Your task to perform on an android device: Open my contact list Image 0: 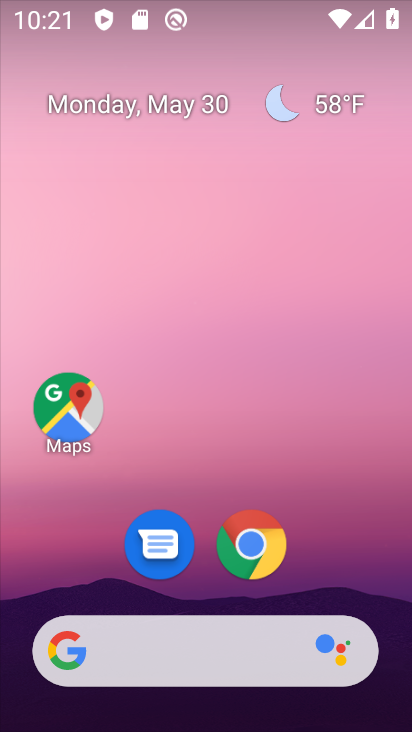
Step 0: drag from (345, 575) to (345, 4)
Your task to perform on an android device: Open my contact list Image 1: 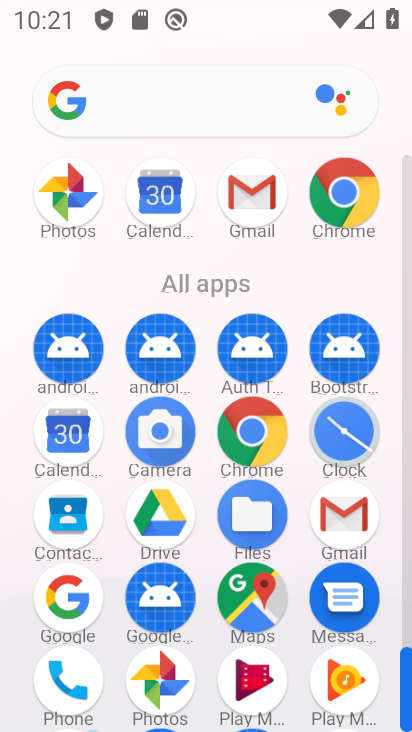
Step 1: click (407, 709)
Your task to perform on an android device: Open my contact list Image 2: 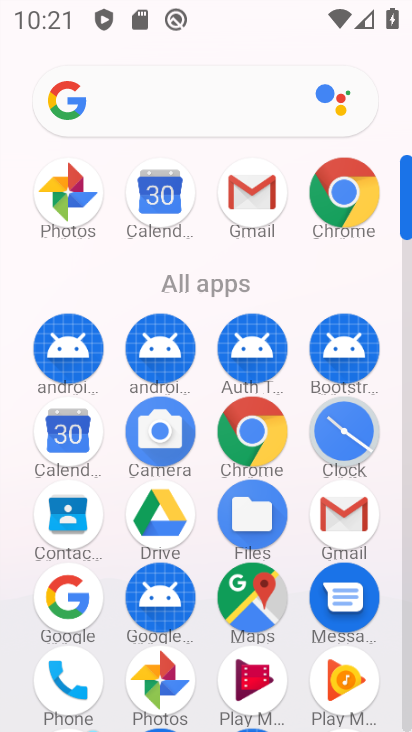
Step 2: click (408, 726)
Your task to perform on an android device: Open my contact list Image 3: 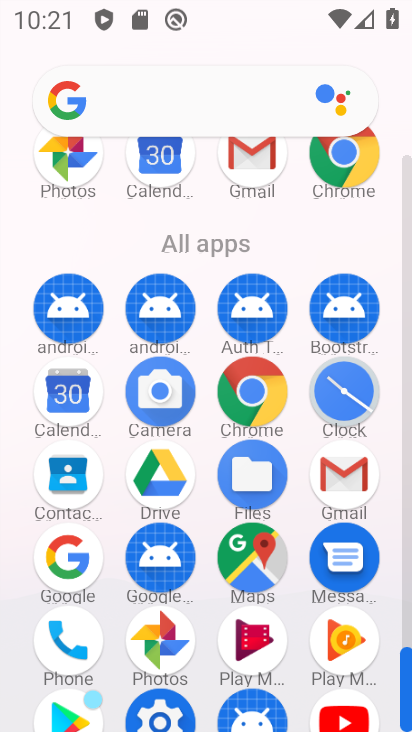
Step 3: click (408, 726)
Your task to perform on an android device: Open my contact list Image 4: 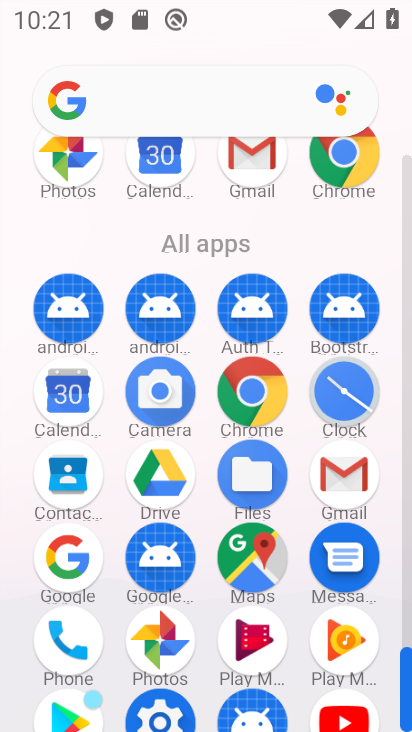
Step 4: click (69, 475)
Your task to perform on an android device: Open my contact list Image 5: 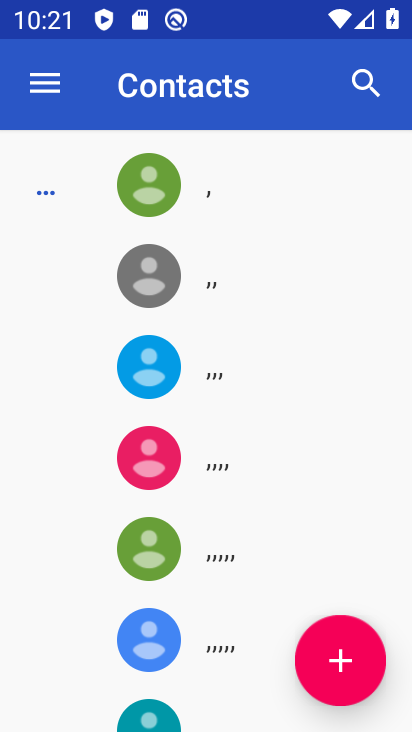
Step 5: task complete